Your task to perform on an android device: Open Chrome and go to settings Image 0: 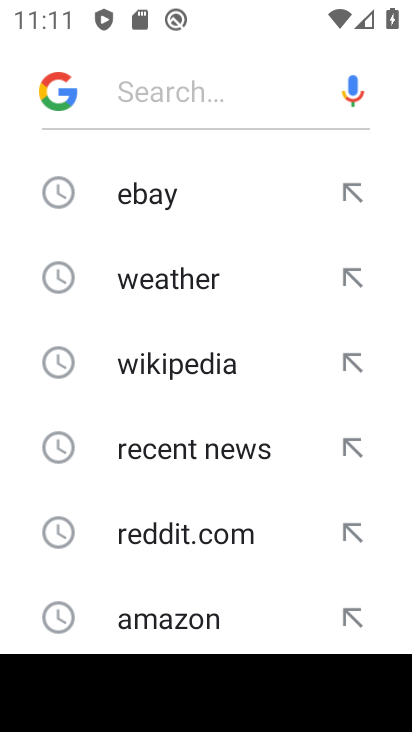
Step 0: press home button
Your task to perform on an android device: Open Chrome and go to settings Image 1: 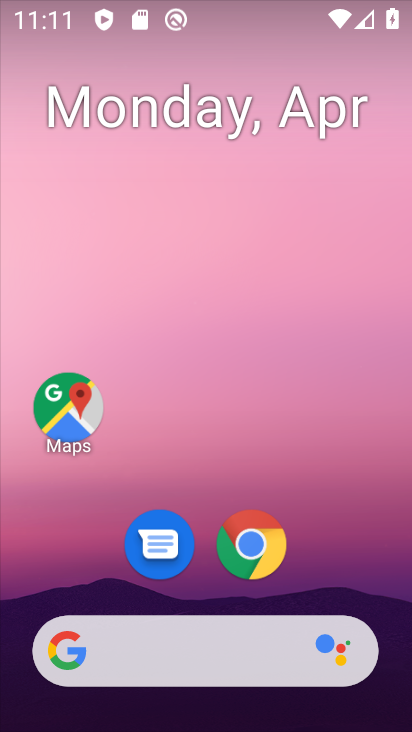
Step 1: click (254, 550)
Your task to perform on an android device: Open Chrome and go to settings Image 2: 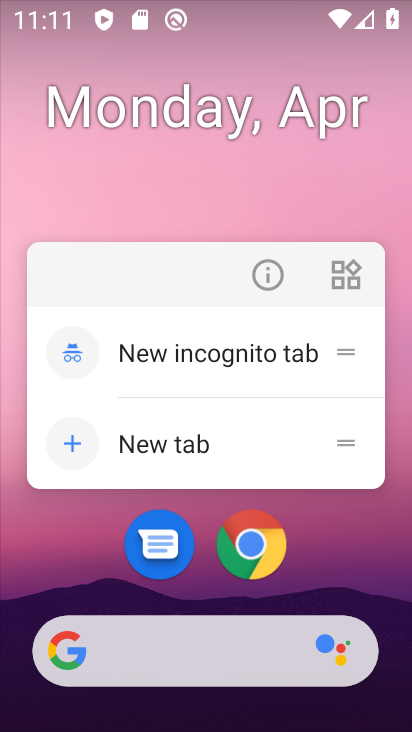
Step 2: click (260, 548)
Your task to perform on an android device: Open Chrome and go to settings Image 3: 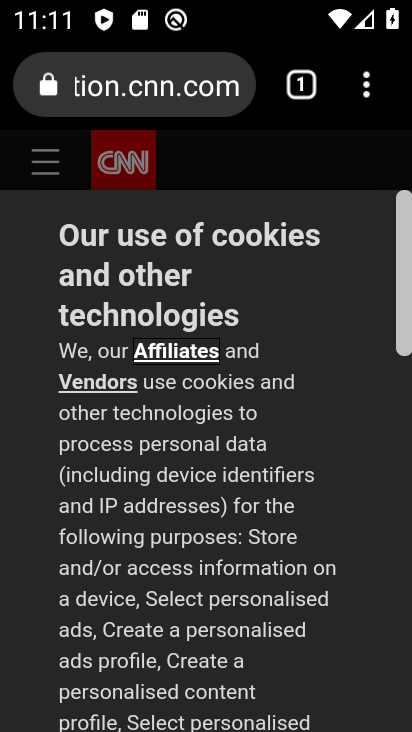
Step 3: click (366, 84)
Your task to perform on an android device: Open Chrome and go to settings Image 4: 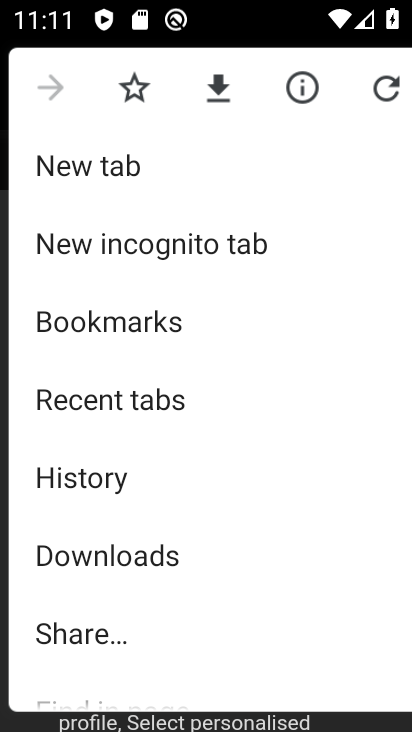
Step 4: drag from (231, 570) to (213, 217)
Your task to perform on an android device: Open Chrome and go to settings Image 5: 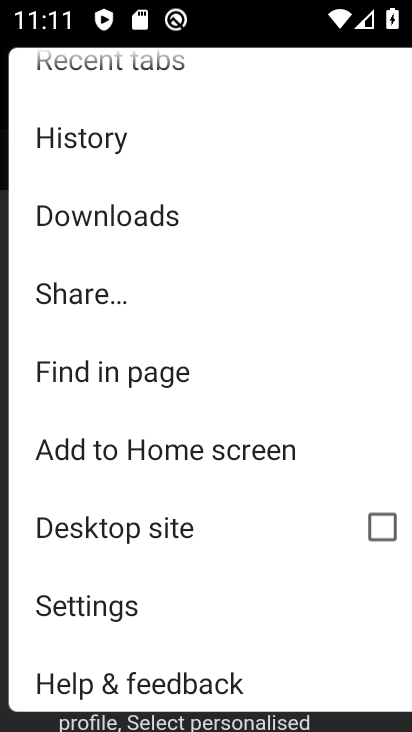
Step 5: drag from (199, 550) to (182, 298)
Your task to perform on an android device: Open Chrome and go to settings Image 6: 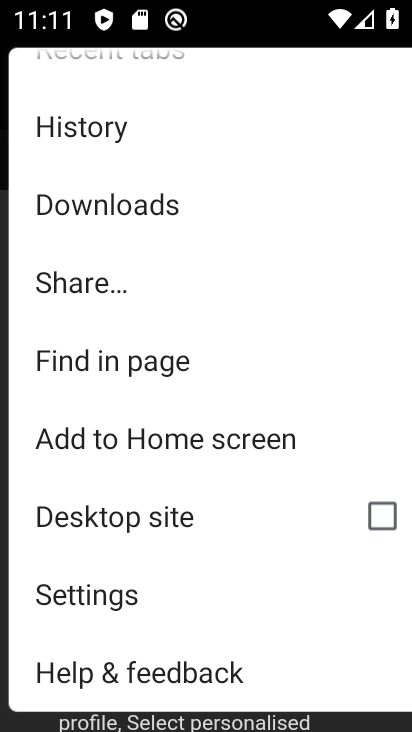
Step 6: click (92, 603)
Your task to perform on an android device: Open Chrome and go to settings Image 7: 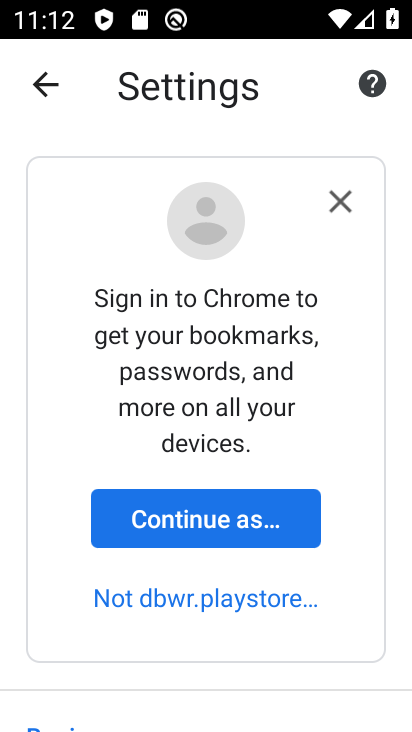
Step 7: task complete